Your task to perform on an android device: turn off picture-in-picture Image 0: 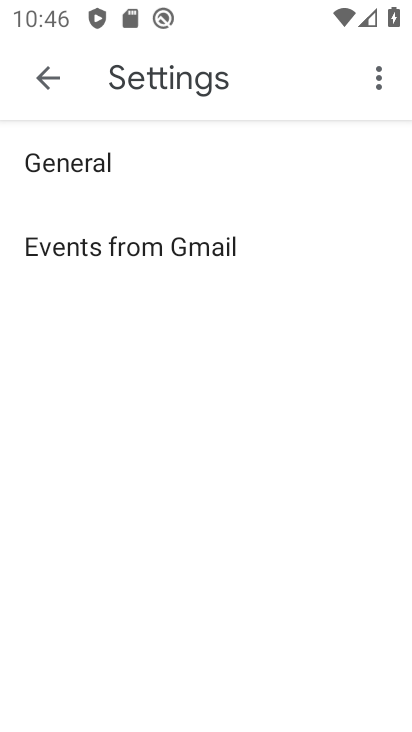
Step 0: press home button
Your task to perform on an android device: turn off picture-in-picture Image 1: 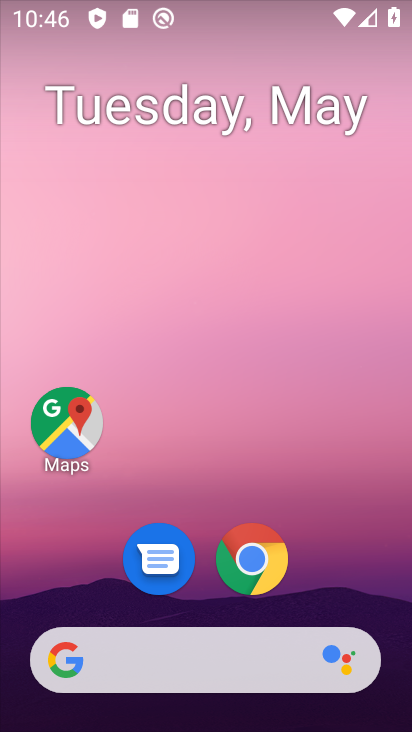
Step 1: click (278, 556)
Your task to perform on an android device: turn off picture-in-picture Image 2: 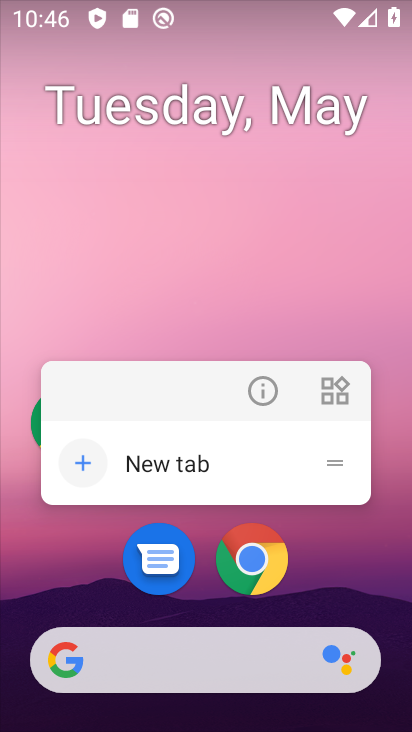
Step 2: click (262, 380)
Your task to perform on an android device: turn off picture-in-picture Image 3: 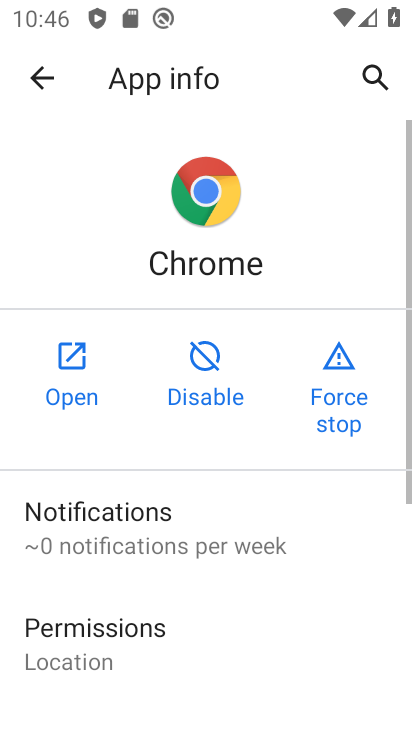
Step 3: drag from (233, 658) to (259, 56)
Your task to perform on an android device: turn off picture-in-picture Image 4: 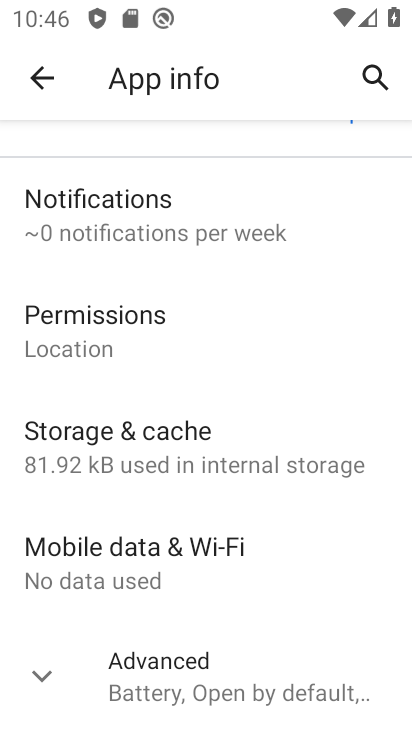
Step 4: drag from (249, 627) to (198, 321)
Your task to perform on an android device: turn off picture-in-picture Image 5: 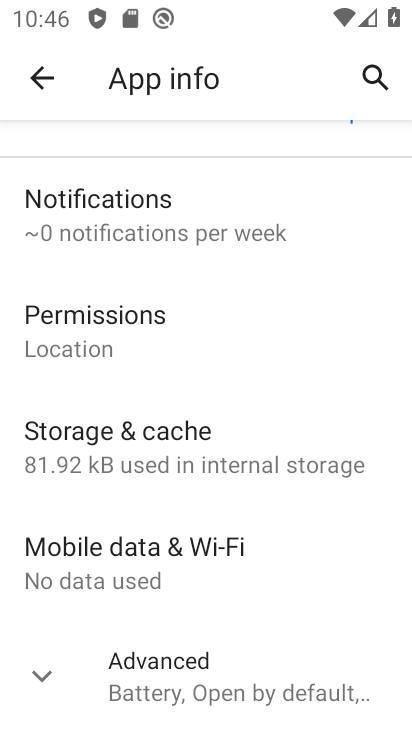
Step 5: click (196, 653)
Your task to perform on an android device: turn off picture-in-picture Image 6: 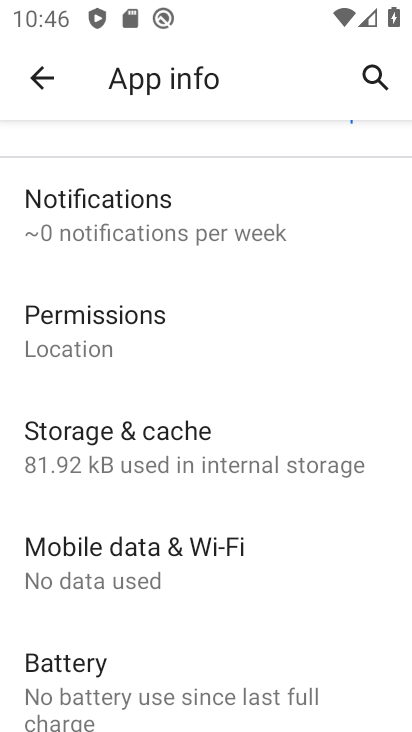
Step 6: drag from (196, 653) to (153, 116)
Your task to perform on an android device: turn off picture-in-picture Image 7: 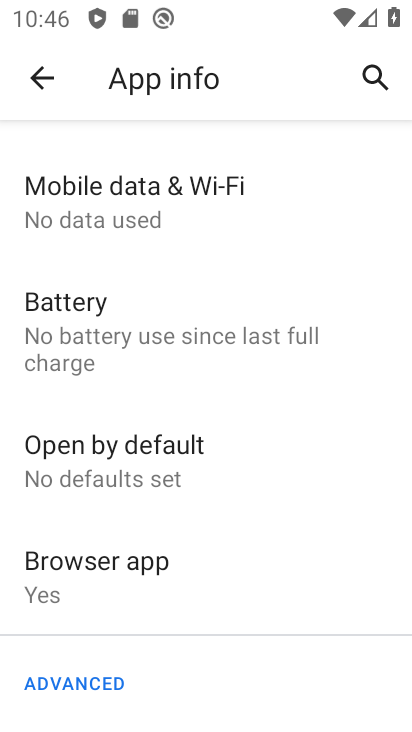
Step 7: drag from (202, 722) to (184, 186)
Your task to perform on an android device: turn off picture-in-picture Image 8: 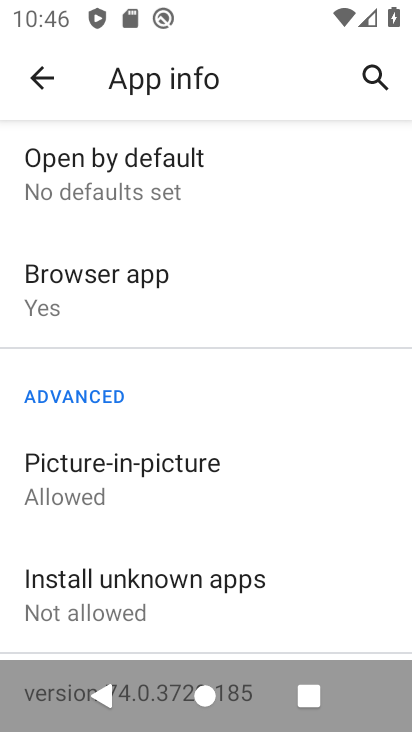
Step 8: click (201, 469)
Your task to perform on an android device: turn off picture-in-picture Image 9: 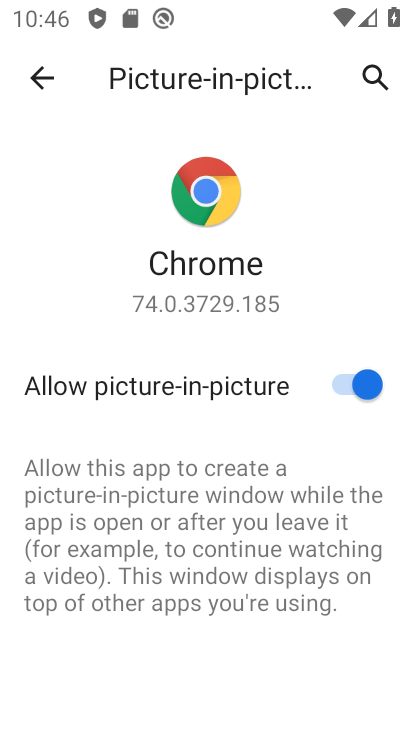
Step 9: click (357, 379)
Your task to perform on an android device: turn off picture-in-picture Image 10: 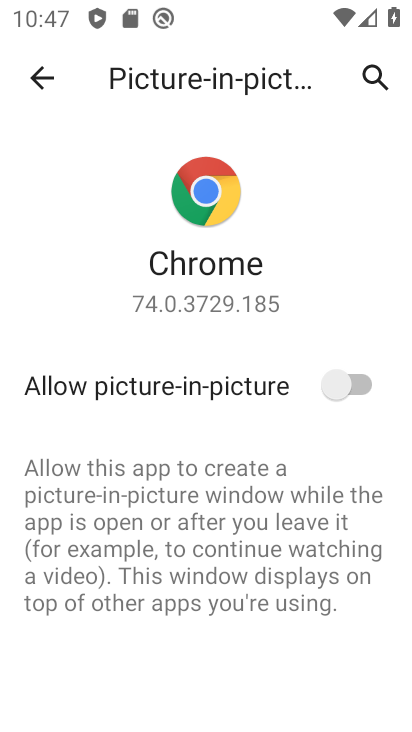
Step 10: task complete